Your task to perform on an android device: Open settings Image 0: 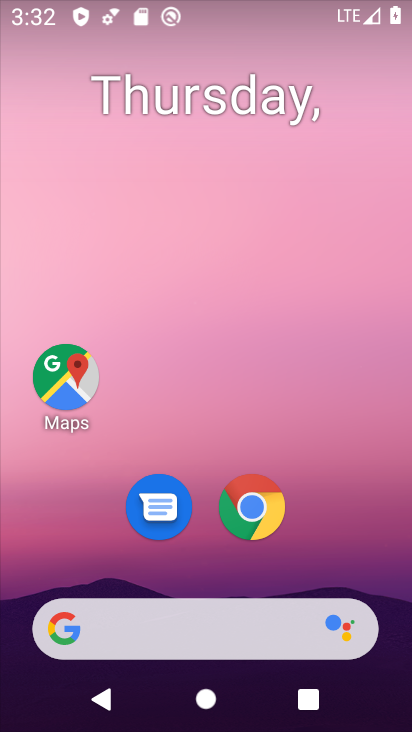
Step 0: drag from (349, 560) to (379, 105)
Your task to perform on an android device: Open settings Image 1: 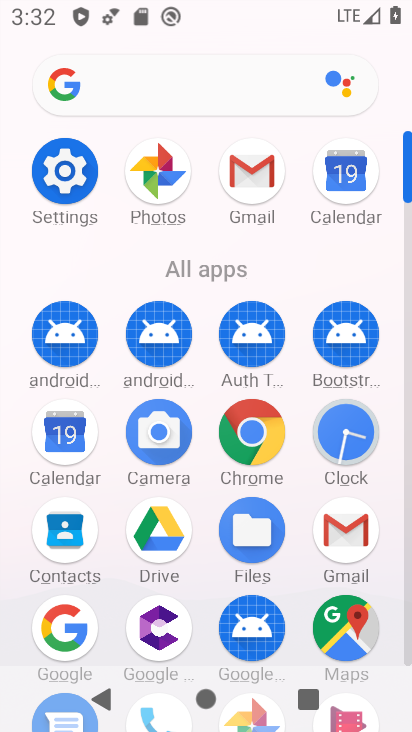
Step 1: click (56, 189)
Your task to perform on an android device: Open settings Image 2: 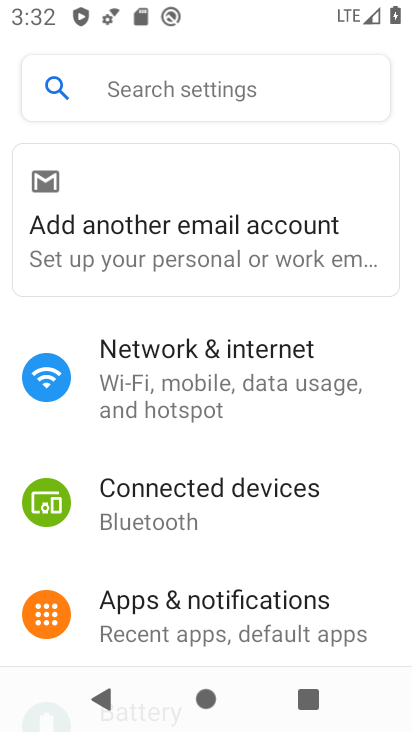
Step 2: task complete